Your task to perform on an android device: clear all cookies in the chrome app Image 0: 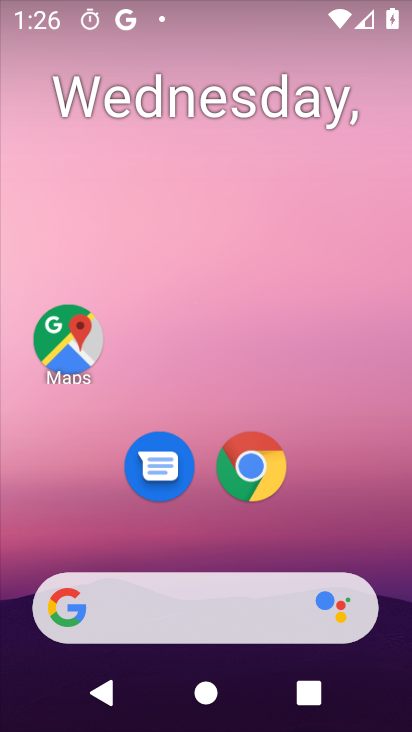
Step 0: click (281, 465)
Your task to perform on an android device: clear all cookies in the chrome app Image 1: 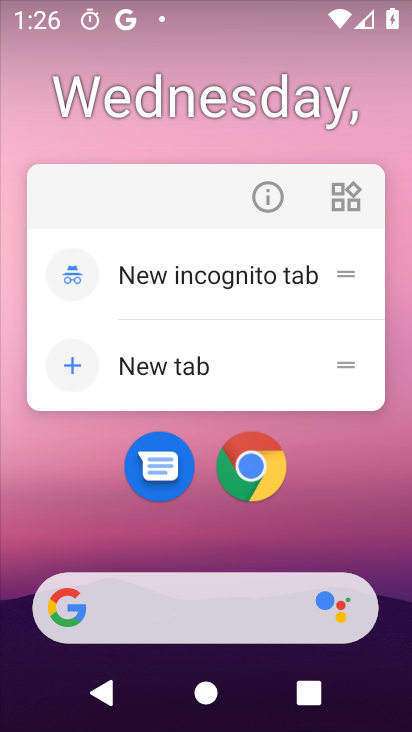
Step 1: click (248, 444)
Your task to perform on an android device: clear all cookies in the chrome app Image 2: 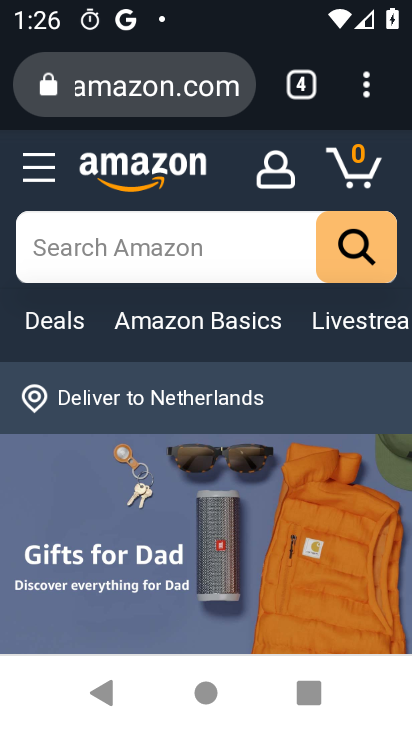
Step 2: click (357, 87)
Your task to perform on an android device: clear all cookies in the chrome app Image 3: 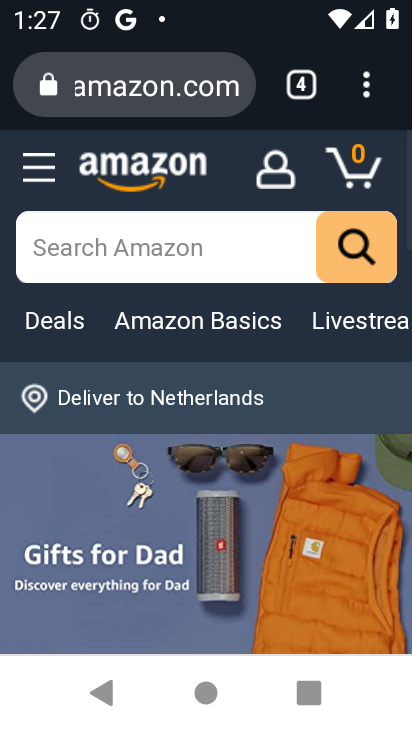
Step 3: click (383, 88)
Your task to perform on an android device: clear all cookies in the chrome app Image 4: 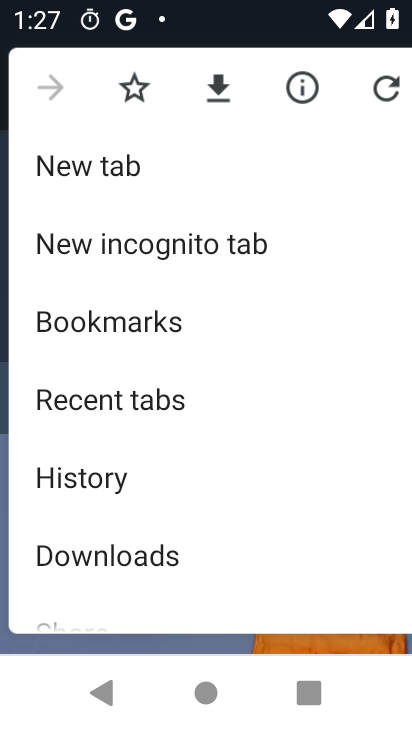
Step 4: drag from (308, 489) to (258, 156)
Your task to perform on an android device: clear all cookies in the chrome app Image 5: 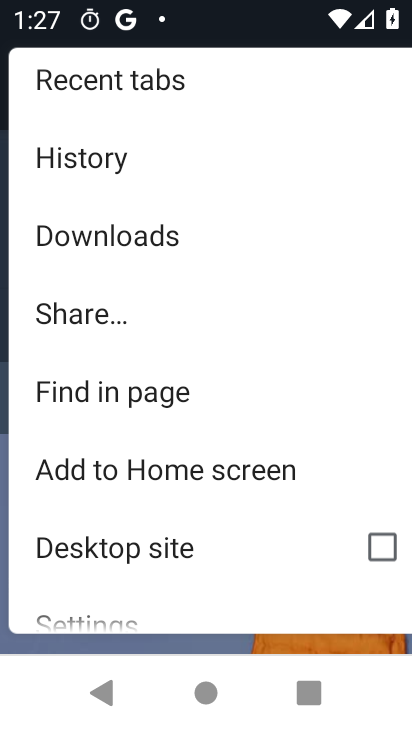
Step 5: drag from (148, 543) to (123, 144)
Your task to perform on an android device: clear all cookies in the chrome app Image 6: 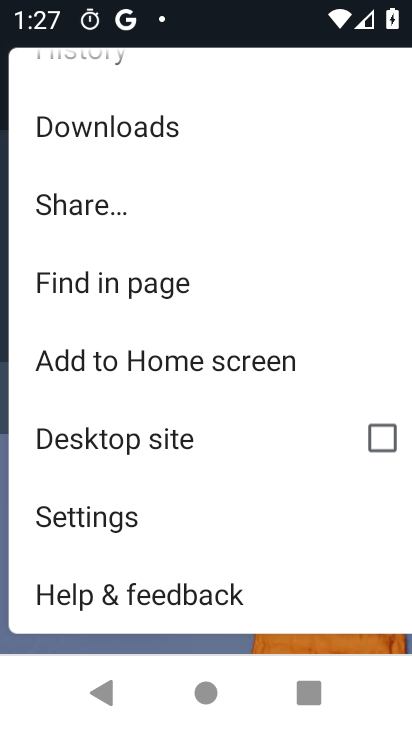
Step 6: click (104, 518)
Your task to perform on an android device: clear all cookies in the chrome app Image 7: 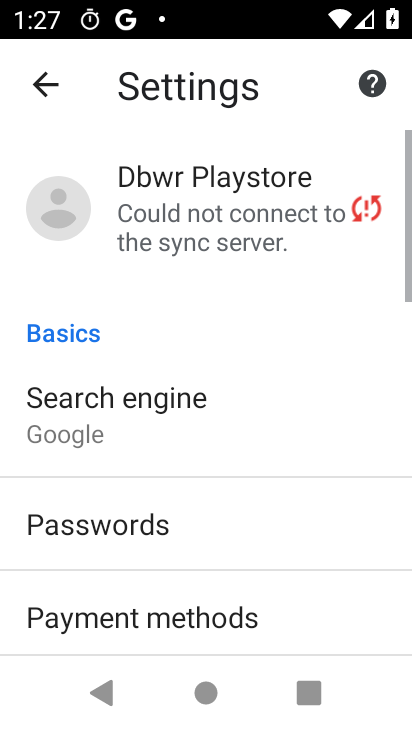
Step 7: drag from (128, 542) to (129, 116)
Your task to perform on an android device: clear all cookies in the chrome app Image 8: 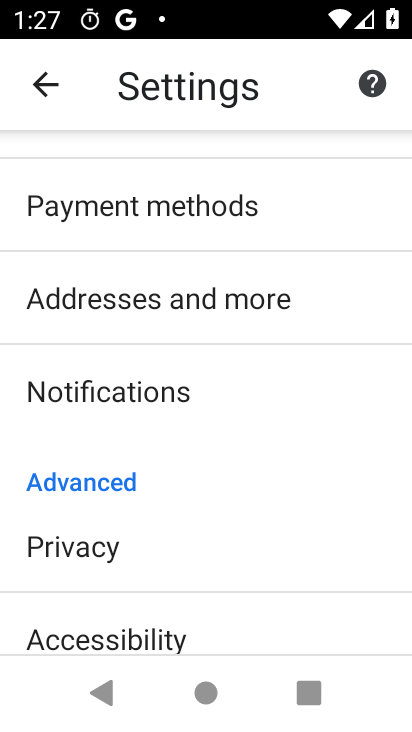
Step 8: drag from (161, 473) to (142, 60)
Your task to perform on an android device: clear all cookies in the chrome app Image 9: 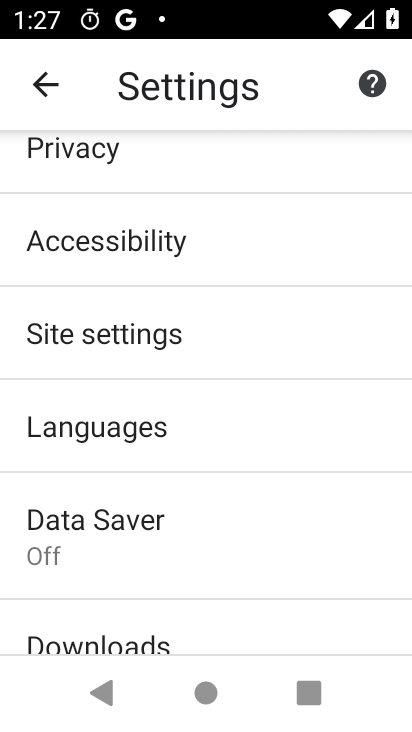
Step 9: click (149, 317)
Your task to perform on an android device: clear all cookies in the chrome app Image 10: 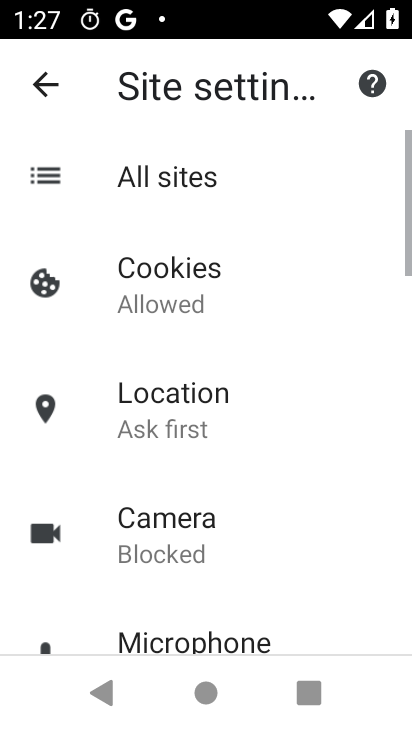
Step 10: click (171, 298)
Your task to perform on an android device: clear all cookies in the chrome app Image 11: 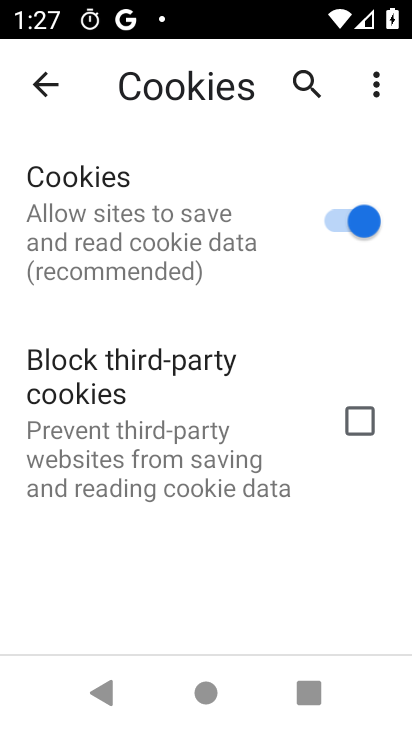
Step 11: click (394, 81)
Your task to perform on an android device: clear all cookies in the chrome app Image 12: 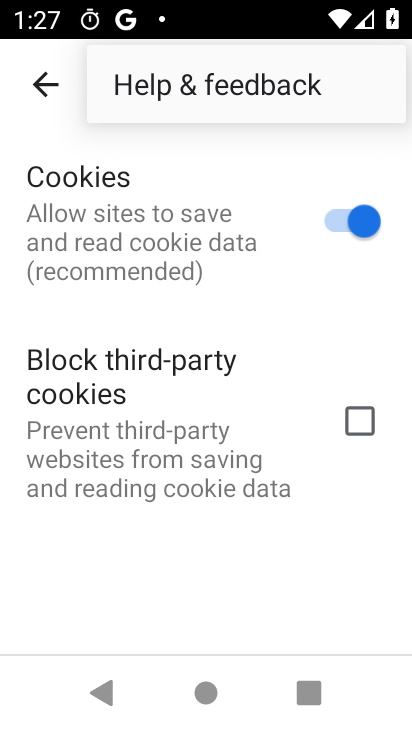
Step 12: task complete